Your task to perform on an android device: Go to wifi settings Image 0: 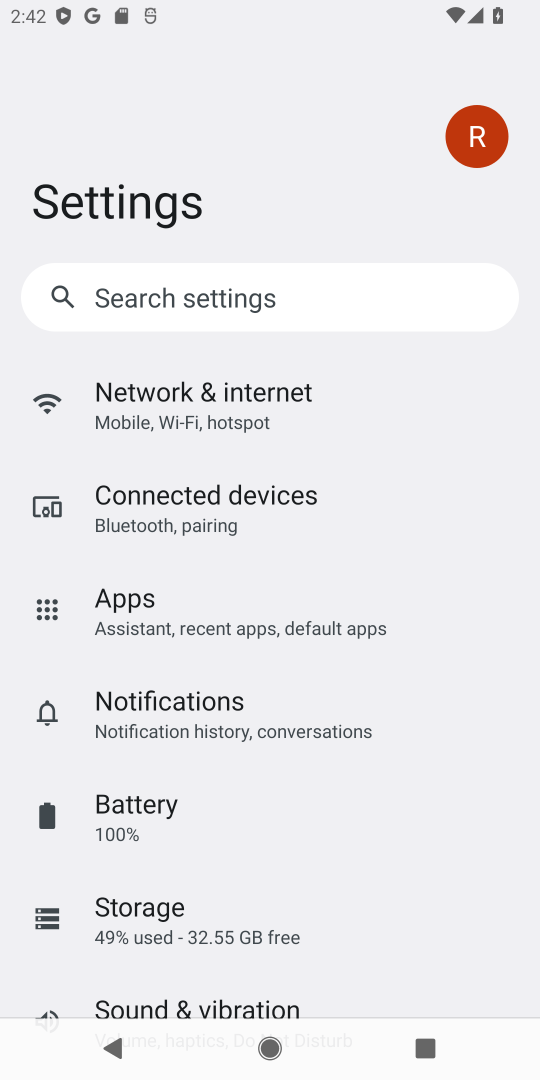
Step 0: click (205, 414)
Your task to perform on an android device: Go to wifi settings Image 1: 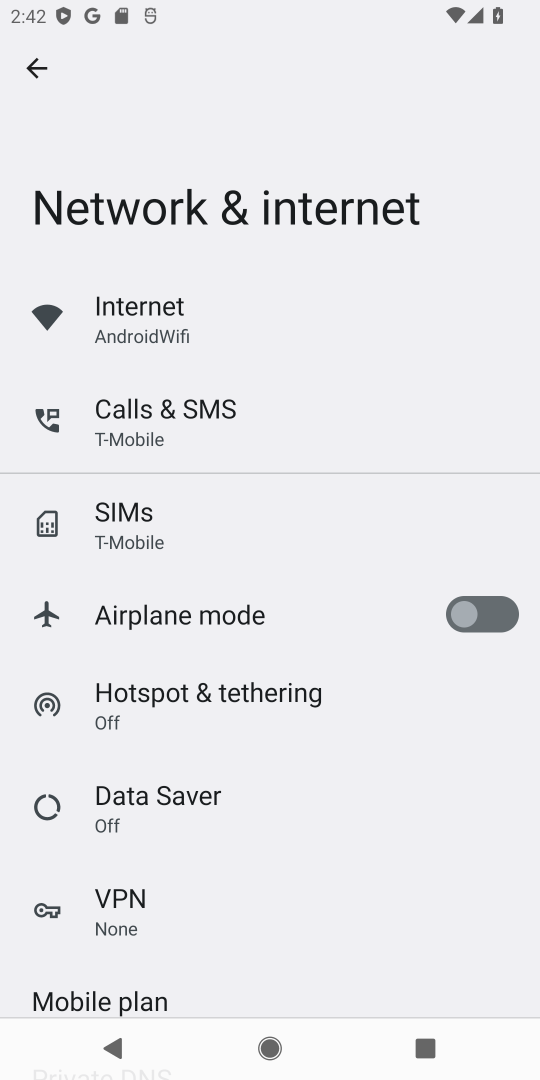
Step 1: click (144, 315)
Your task to perform on an android device: Go to wifi settings Image 2: 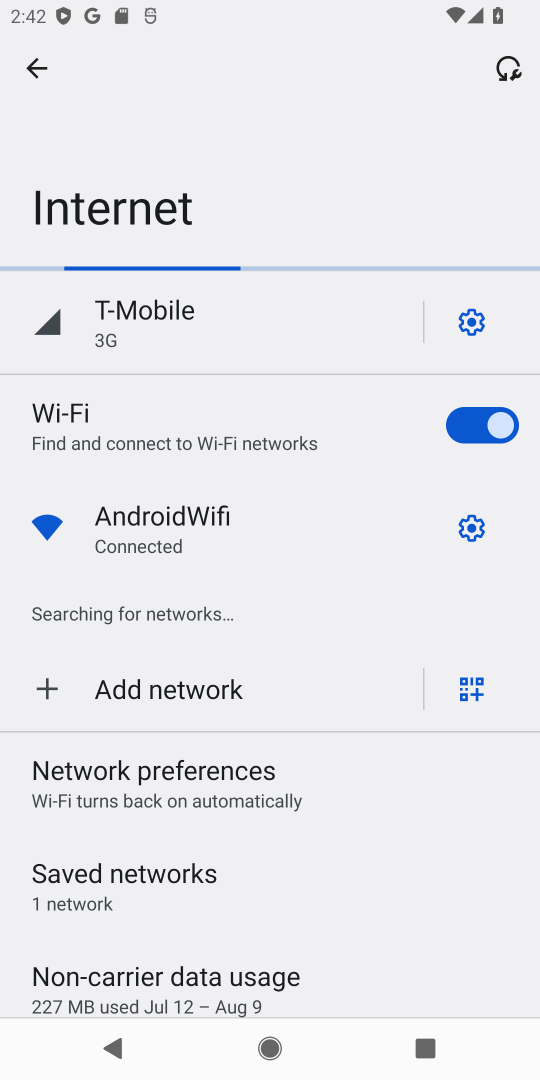
Step 2: click (475, 516)
Your task to perform on an android device: Go to wifi settings Image 3: 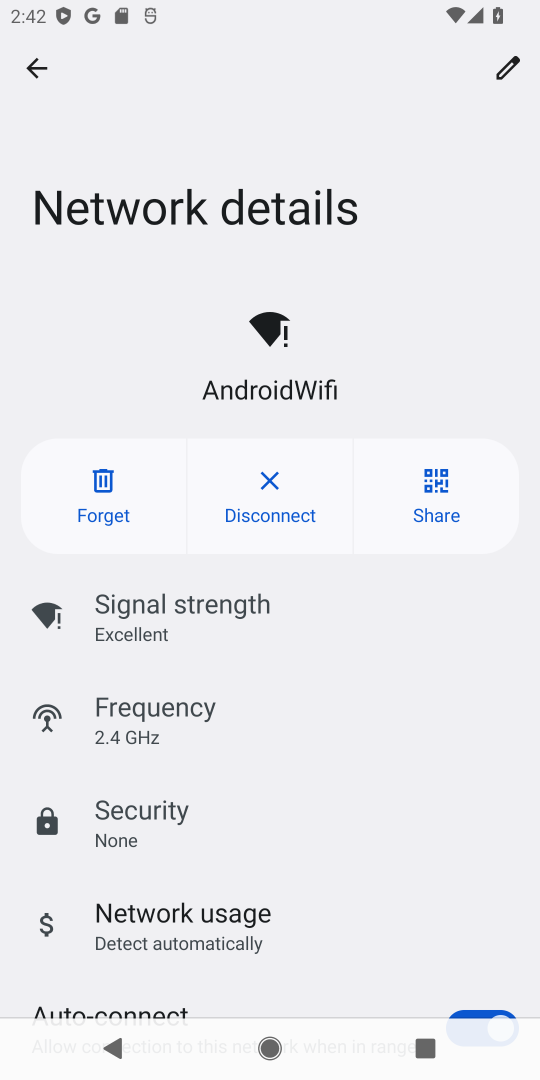
Step 3: task complete